Your task to perform on an android device: see sites visited before in the chrome app Image 0: 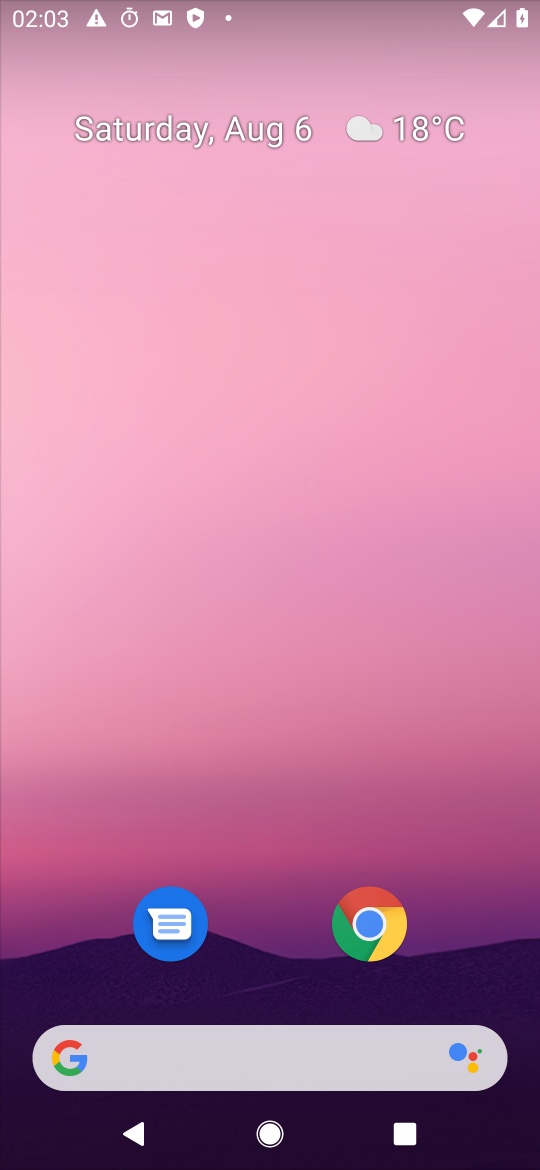
Step 0: drag from (289, 1054) to (416, 40)
Your task to perform on an android device: see sites visited before in the chrome app Image 1: 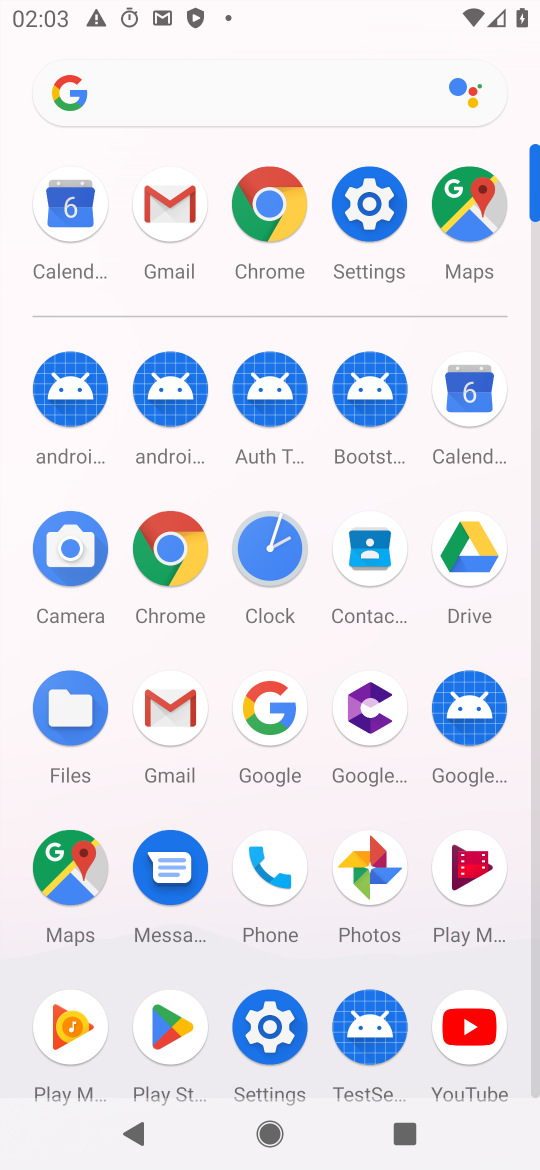
Step 1: click (156, 550)
Your task to perform on an android device: see sites visited before in the chrome app Image 2: 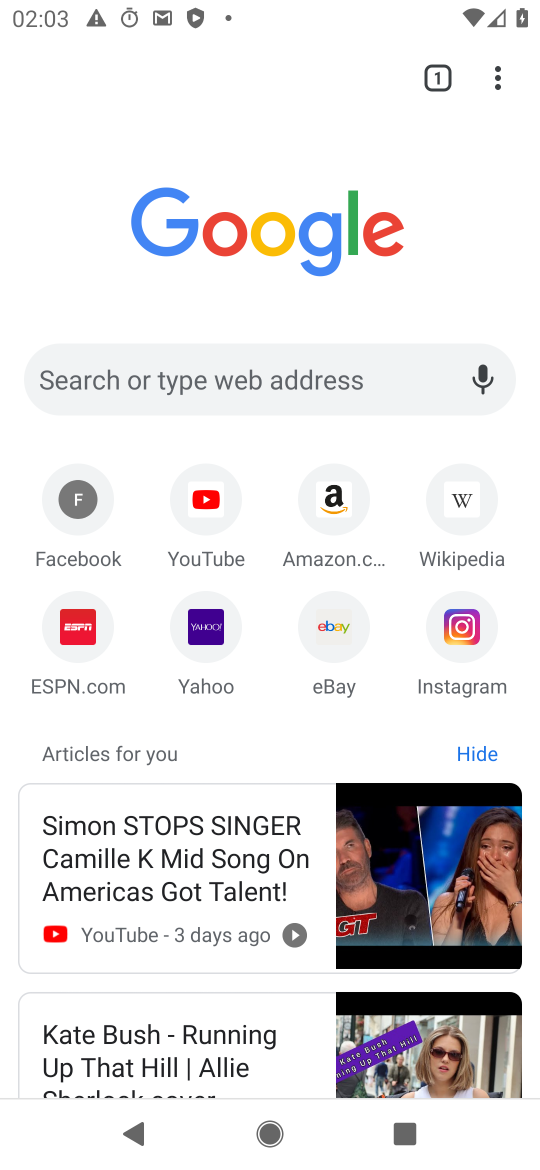
Step 2: click (494, 84)
Your task to perform on an android device: see sites visited before in the chrome app Image 3: 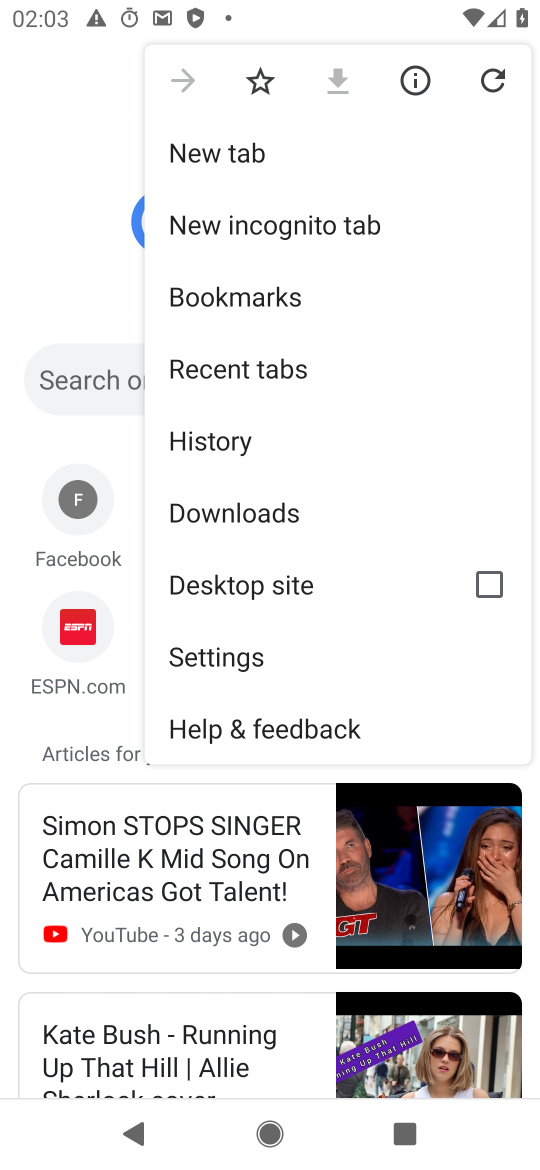
Step 3: click (212, 375)
Your task to perform on an android device: see sites visited before in the chrome app Image 4: 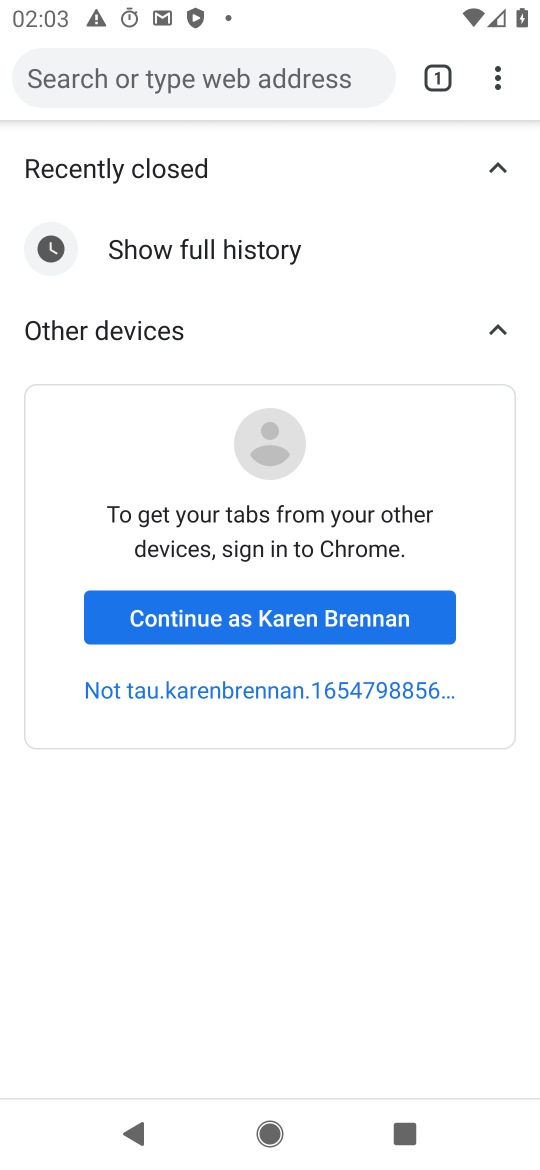
Step 4: task complete